Your task to perform on an android device: set default search engine in the chrome app Image 0: 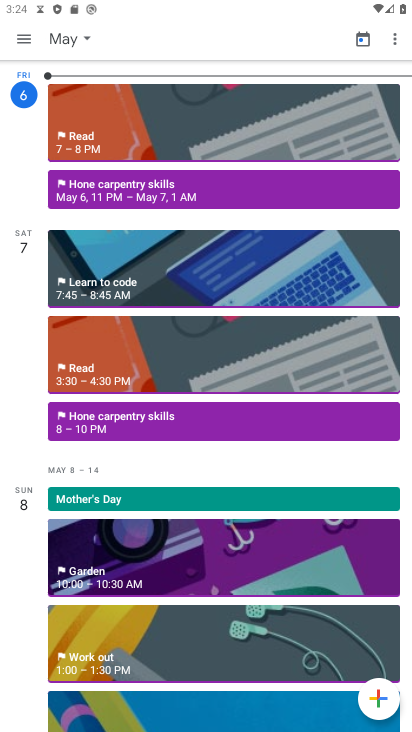
Step 0: press home button
Your task to perform on an android device: set default search engine in the chrome app Image 1: 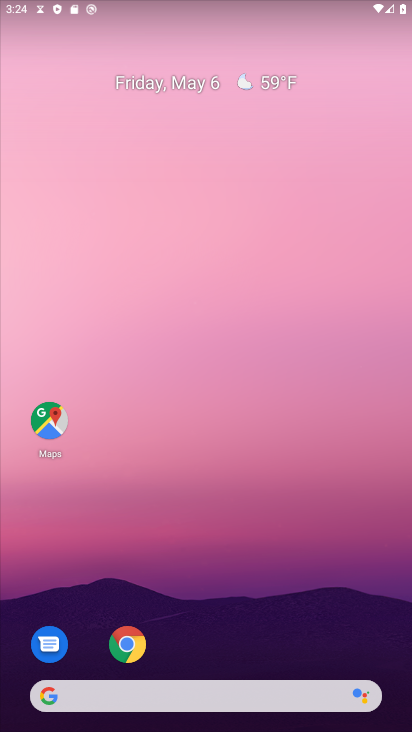
Step 1: click (128, 643)
Your task to perform on an android device: set default search engine in the chrome app Image 2: 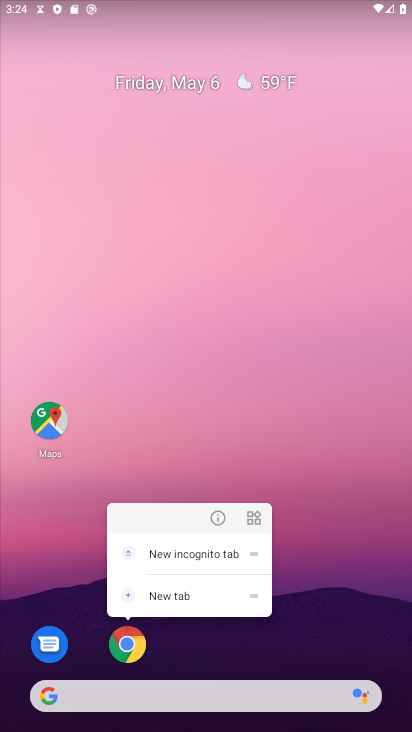
Step 2: click (128, 643)
Your task to perform on an android device: set default search engine in the chrome app Image 3: 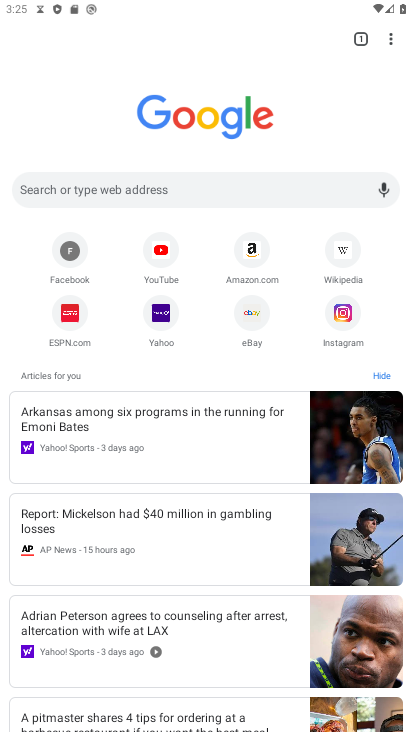
Step 3: click (390, 39)
Your task to perform on an android device: set default search engine in the chrome app Image 4: 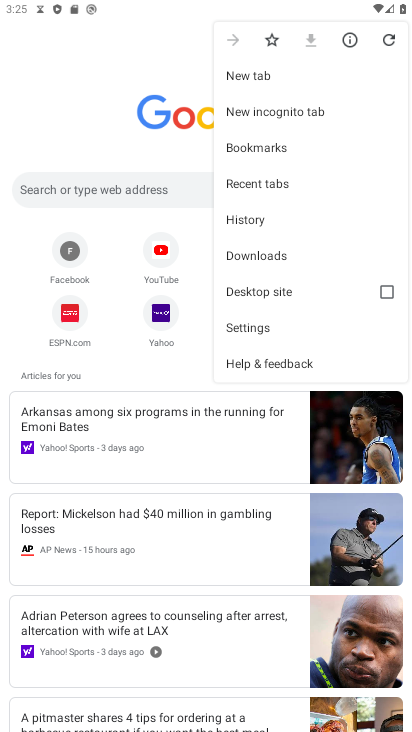
Step 4: click (261, 327)
Your task to perform on an android device: set default search engine in the chrome app Image 5: 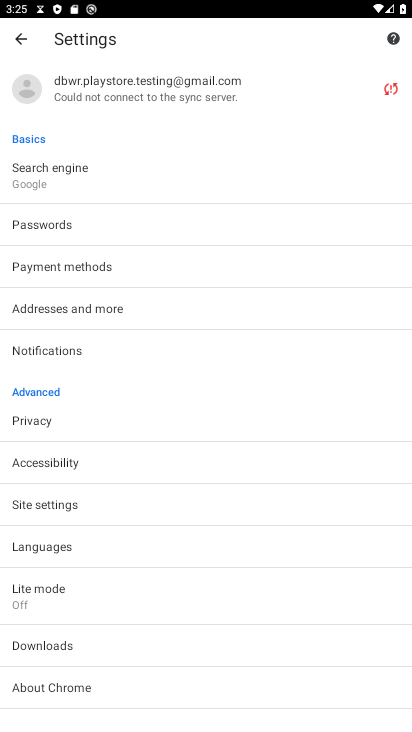
Step 5: click (72, 168)
Your task to perform on an android device: set default search engine in the chrome app Image 6: 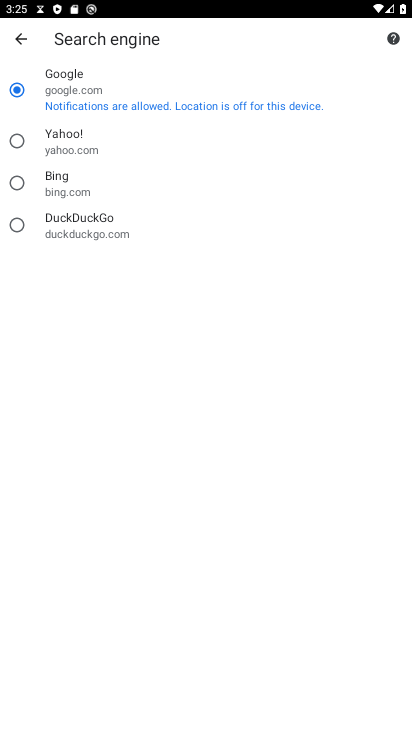
Step 6: click (20, 90)
Your task to perform on an android device: set default search engine in the chrome app Image 7: 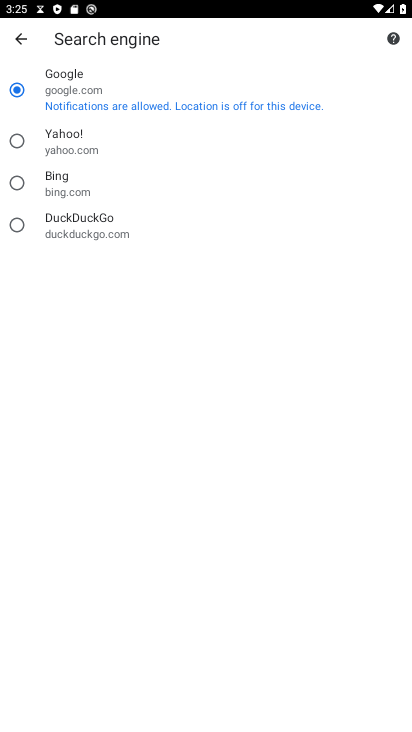
Step 7: task complete